Your task to perform on an android device: turn off notifications in google photos Image 0: 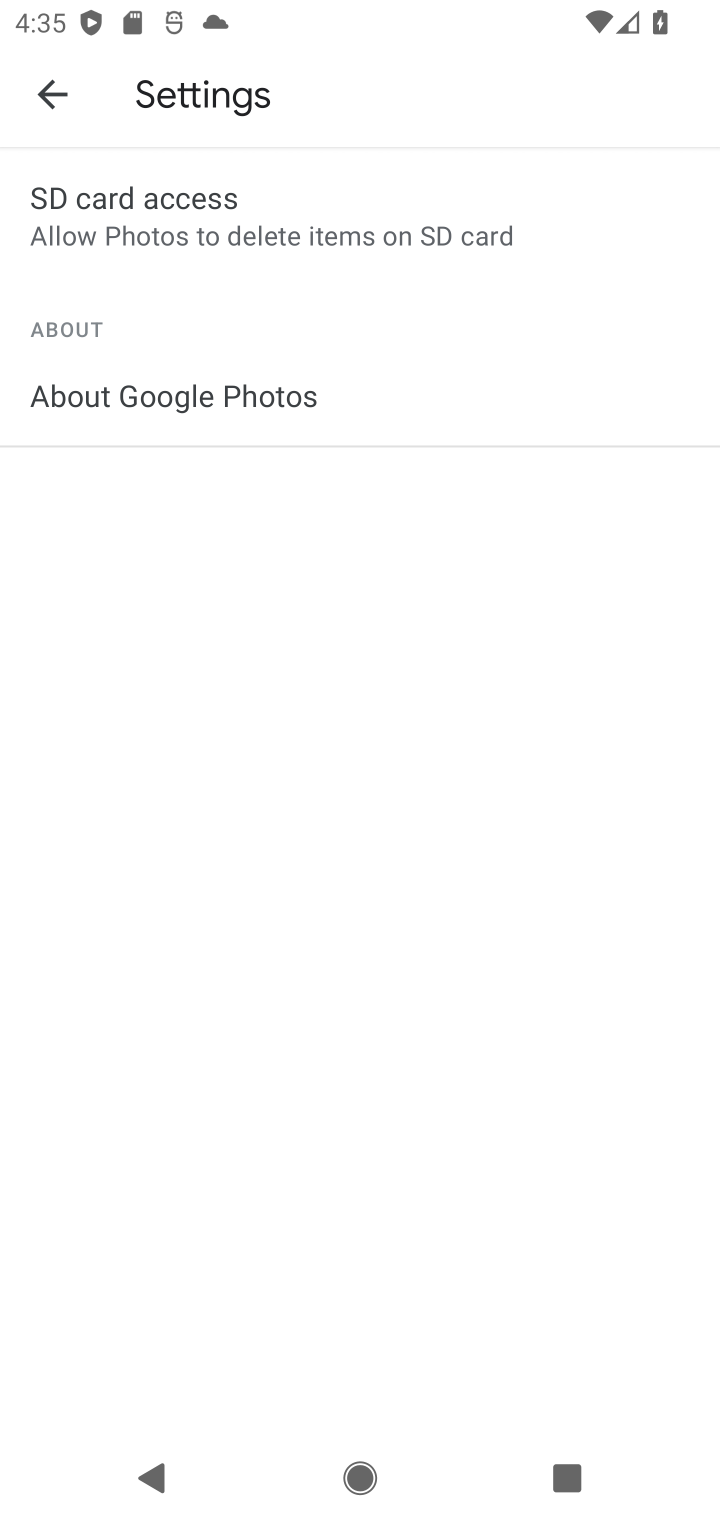
Step 0: press home button
Your task to perform on an android device: turn off notifications in google photos Image 1: 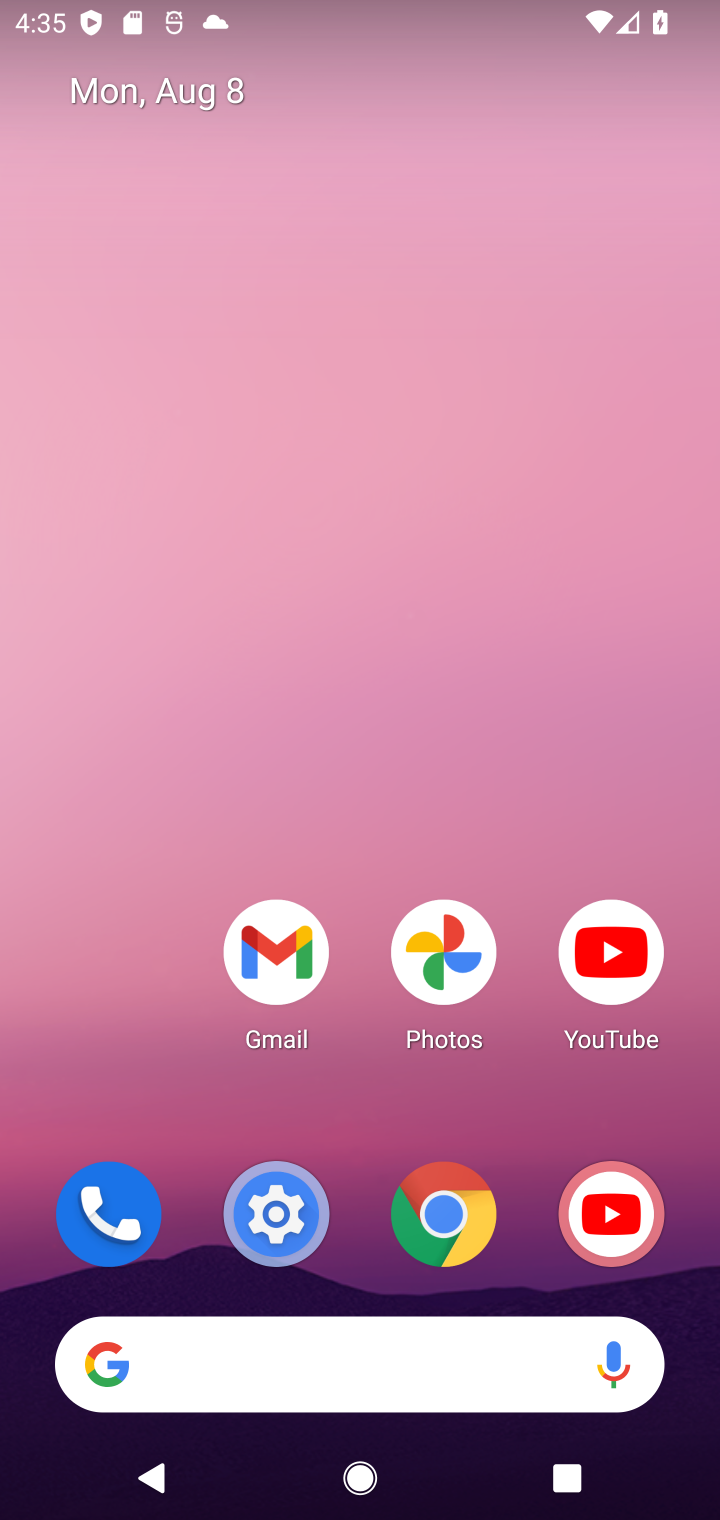
Step 1: drag from (377, 1254) to (373, 39)
Your task to perform on an android device: turn off notifications in google photos Image 2: 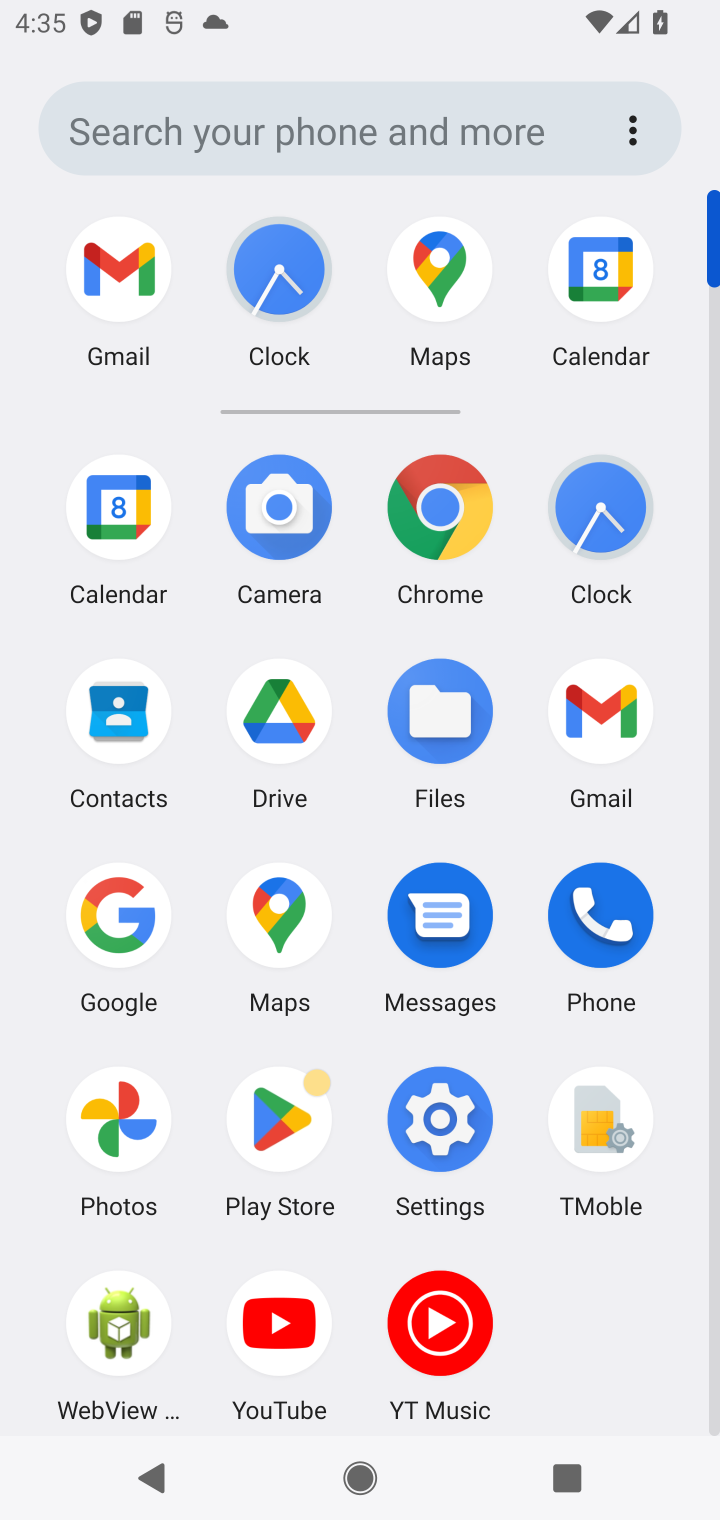
Step 2: click (114, 1115)
Your task to perform on an android device: turn off notifications in google photos Image 3: 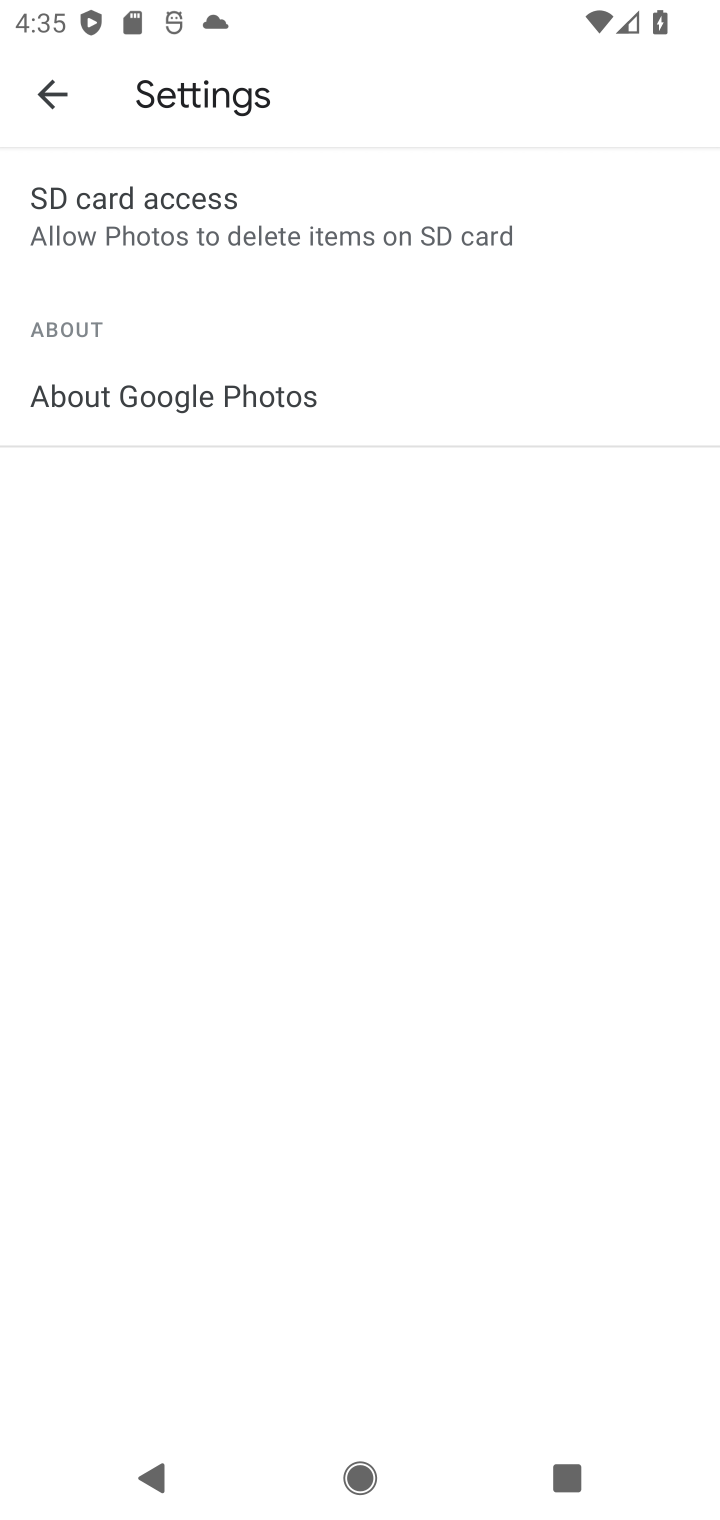
Step 3: click (49, 86)
Your task to perform on an android device: turn off notifications in google photos Image 4: 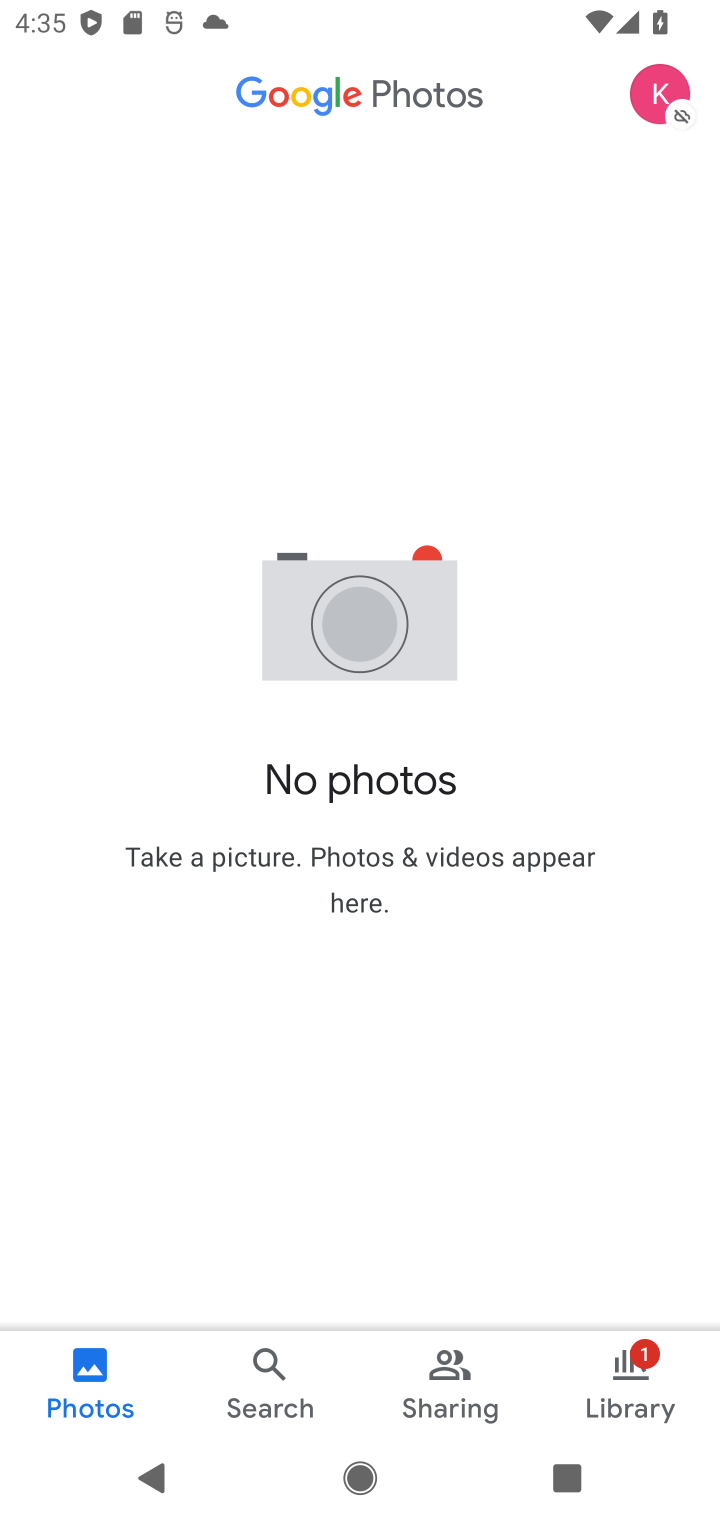
Step 4: click (660, 96)
Your task to perform on an android device: turn off notifications in google photos Image 5: 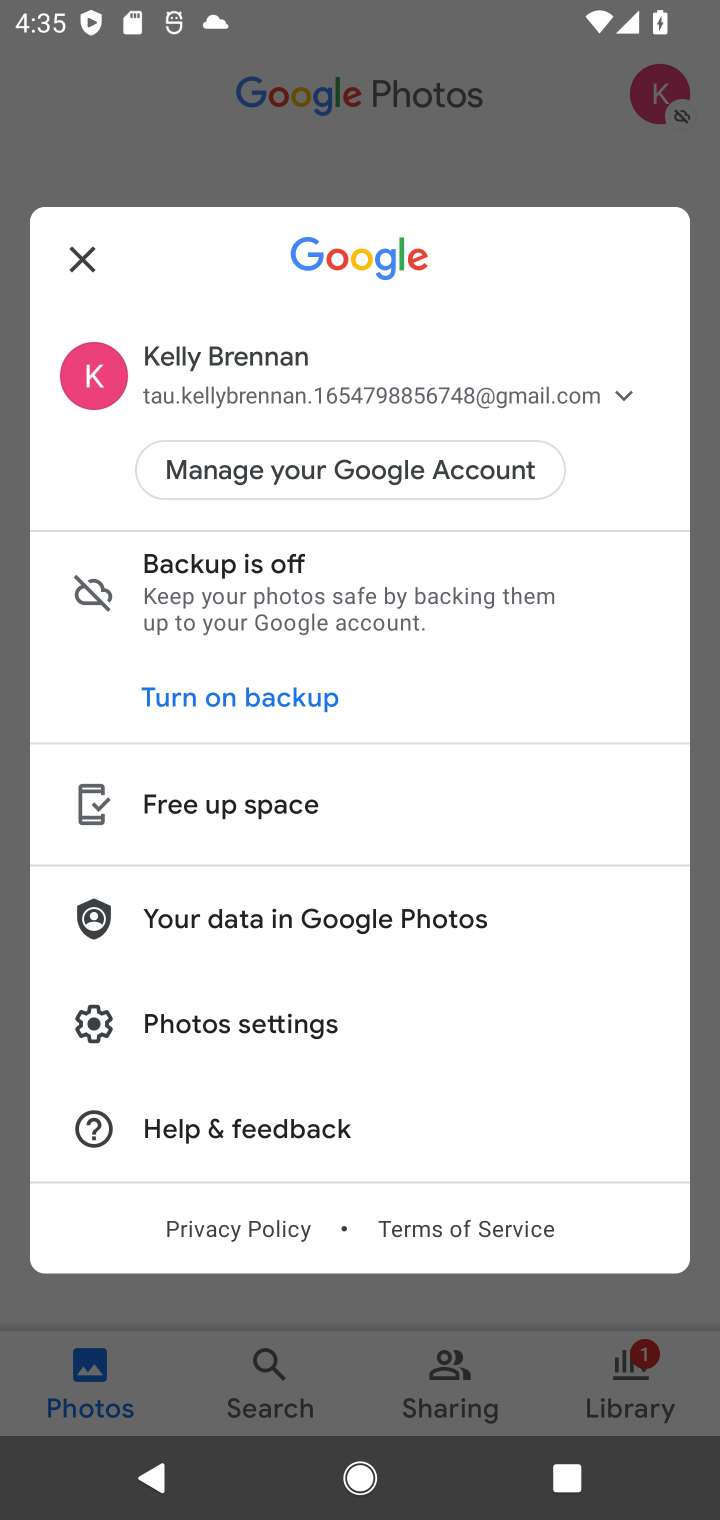
Step 5: click (251, 1023)
Your task to perform on an android device: turn off notifications in google photos Image 6: 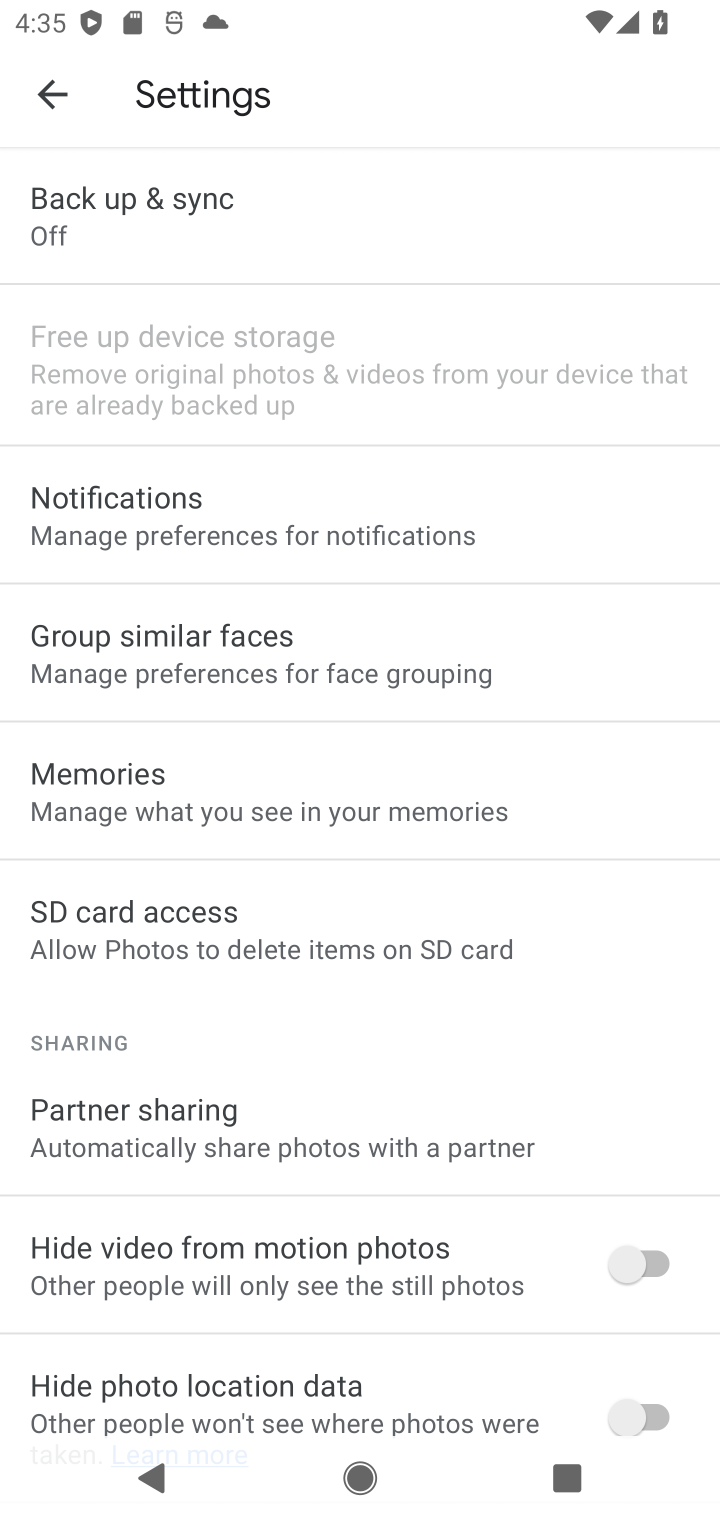
Step 6: click (134, 512)
Your task to perform on an android device: turn off notifications in google photos Image 7: 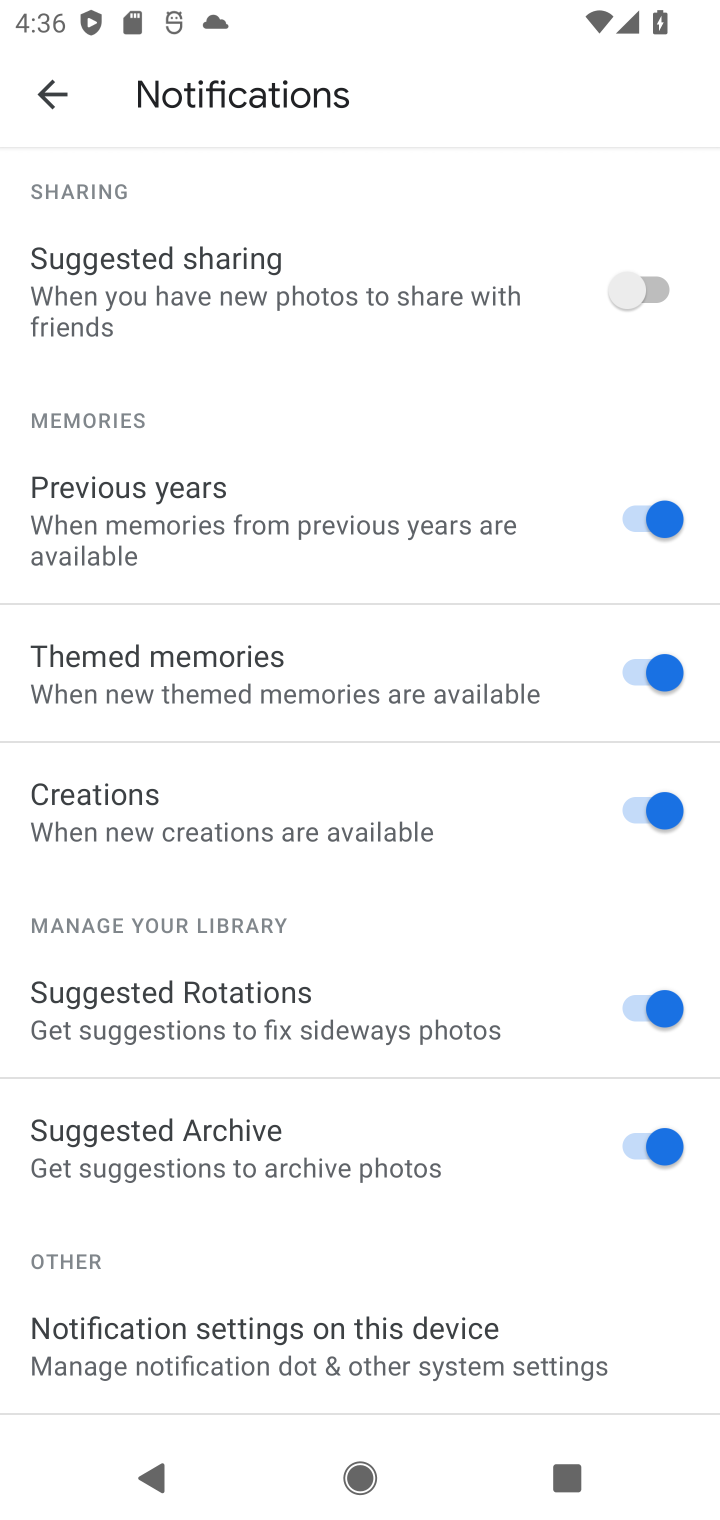
Step 7: drag from (156, 1231) to (244, 449)
Your task to perform on an android device: turn off notifications in google photos Image 8: 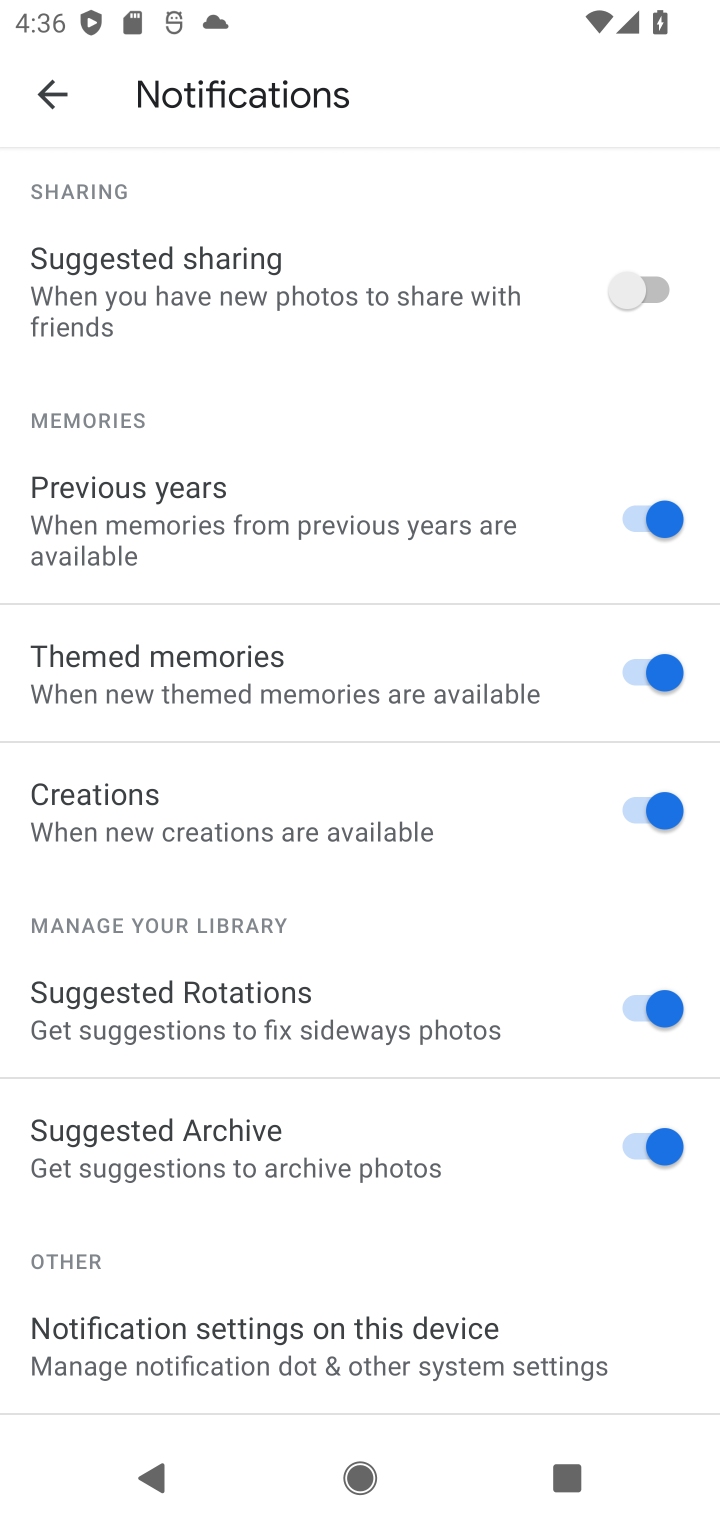
Step 8: click (318, 1352)
Your task to perform on an android device: turn off notifications in google photos Image 9: 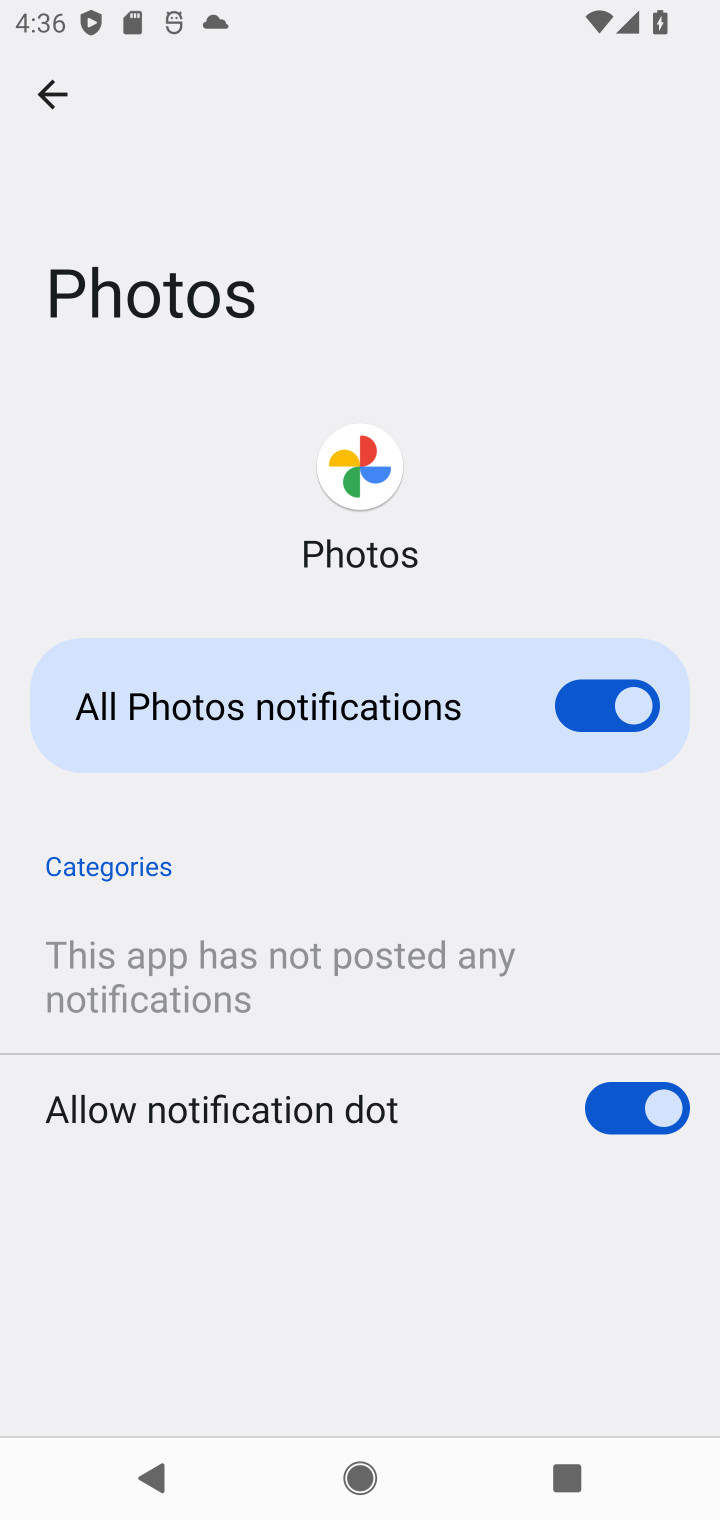
Step 9: click (598, 712)
Your task to perform on an android device: turn off notifications in google photos Image 10: 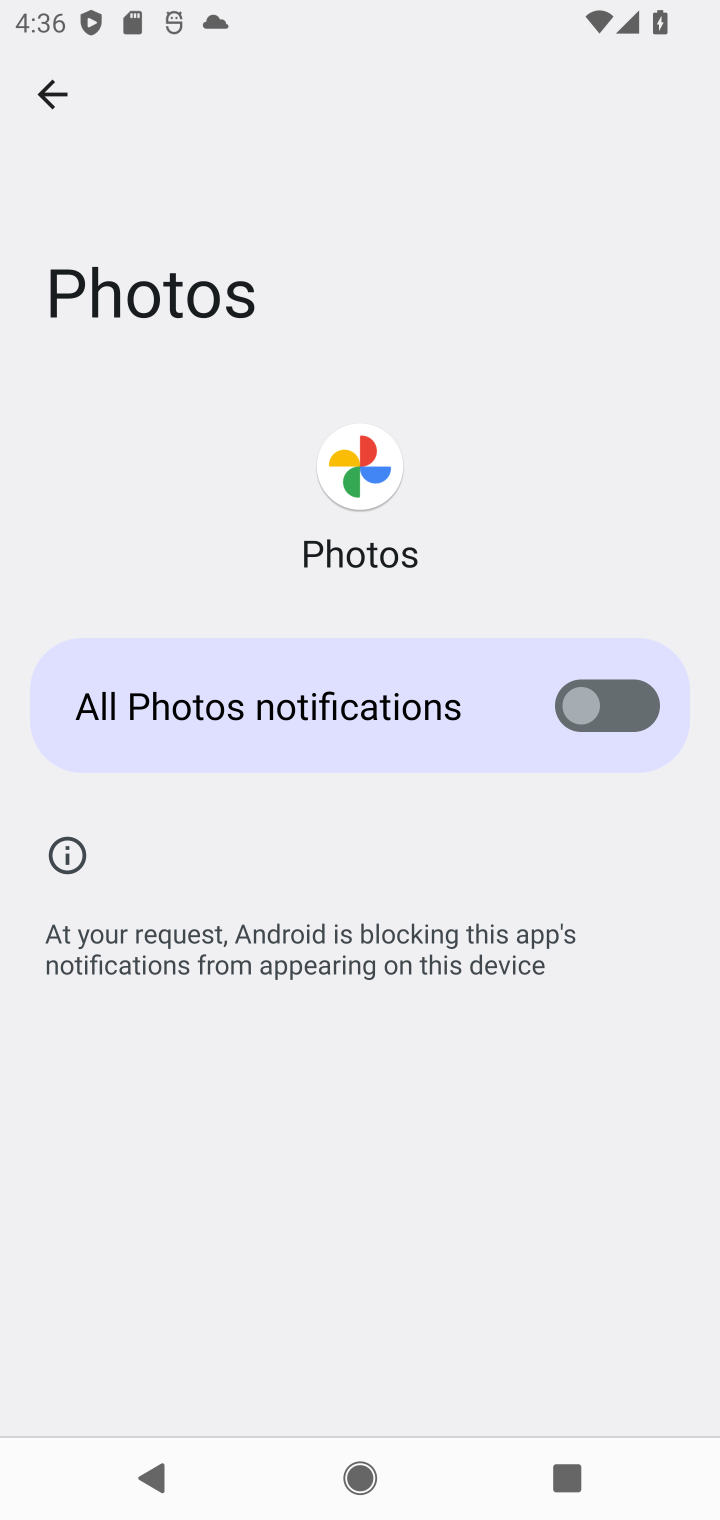
Step 10: task complete